Your task to perform on an android device: When is my next appointment? Image 0: 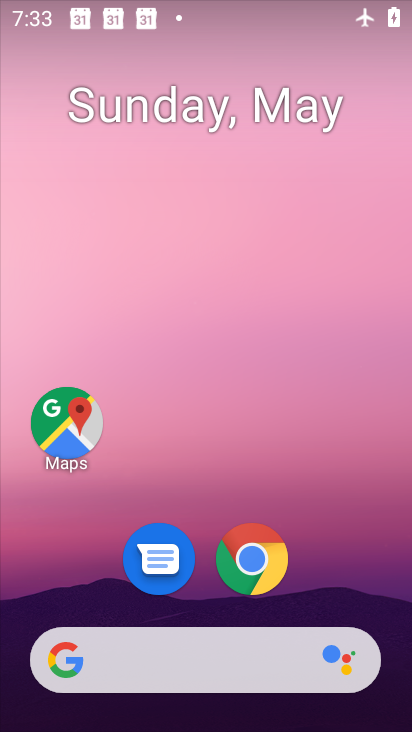
Step 0: press home button
Your task to perform on an android device: When is my next appointment? Image 1: 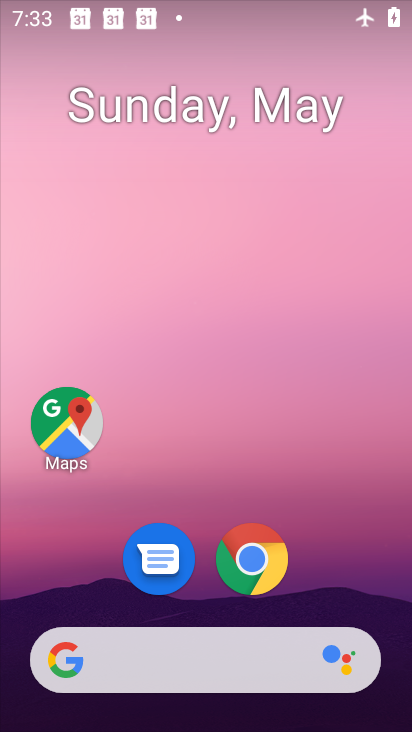
Step 1: drag from (183, 665) to (293, 153)
Your task to perform on an android device: When is my next appointment? Image 2: 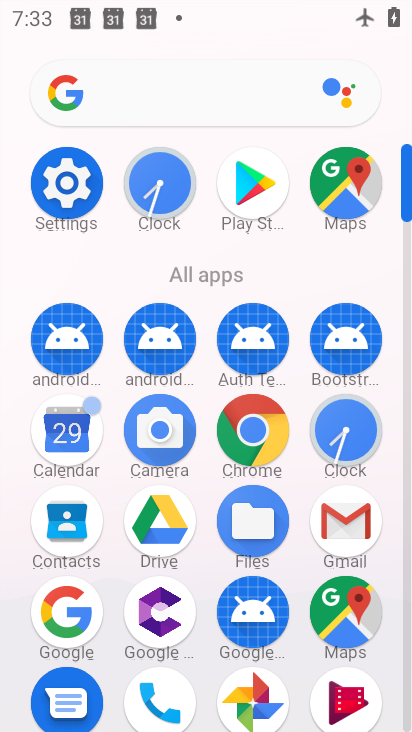
Step 2: click (66, 441)
Your task to perform on an android device: When is my next appointment? Image 3: 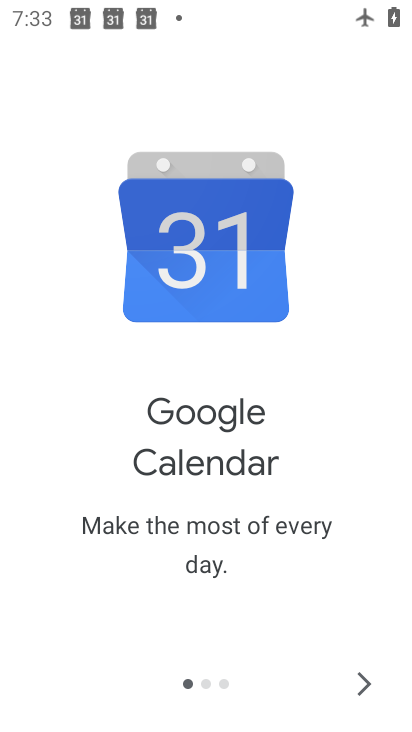
Step 3: click (371, 674)
Your task to perform on an android device: When is my next appointment? Image 4: 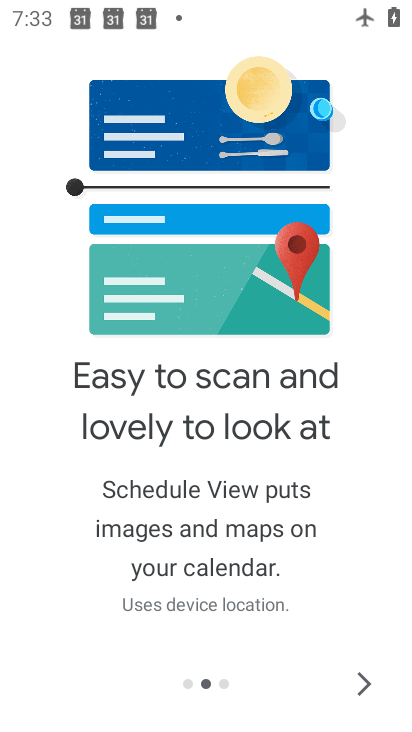
Step 4: click (369, 681)
Your task to perform on an android device: When is my next appointment? Image 5: 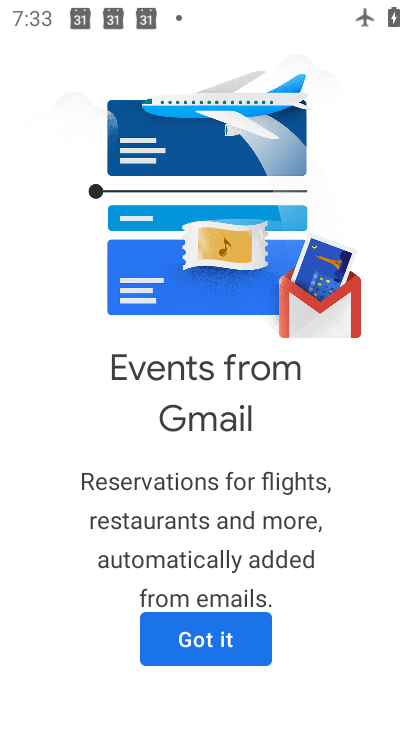
Step 5: click (206, 642)
Your task to perform on an android device: When is my next appointment? Image 6: 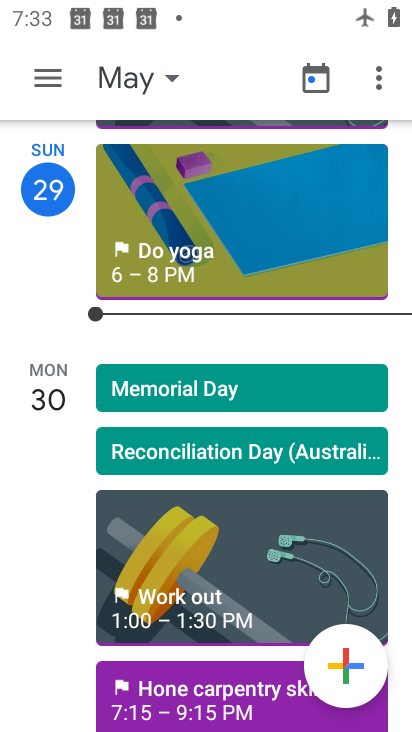
Step 6: click (115, 76)
Your task to perform on an android device: When is my next appointment? Image 7: 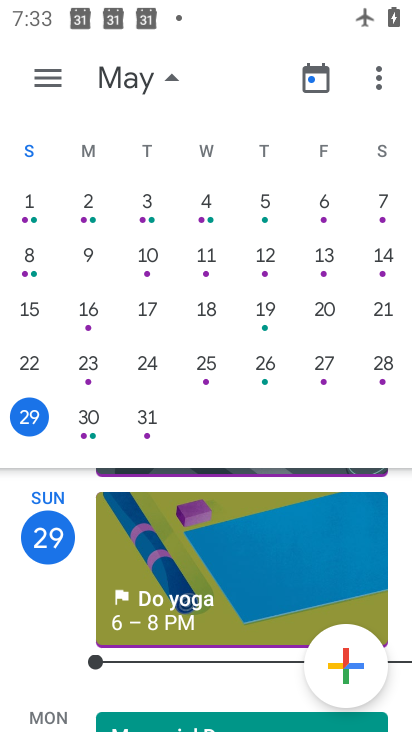
Step 7: click (34, 416)
Your task to perform on an android device: When is my next appointment? Image 8: 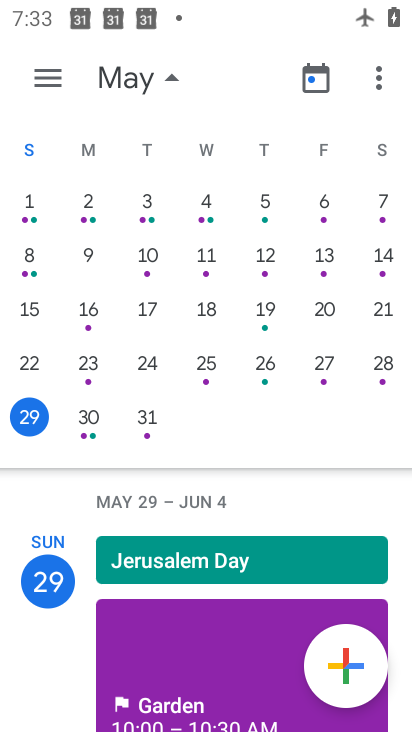
Step 8: click (46, 73)
Your task to perform on an android device: When is my next appointment? Image 9: 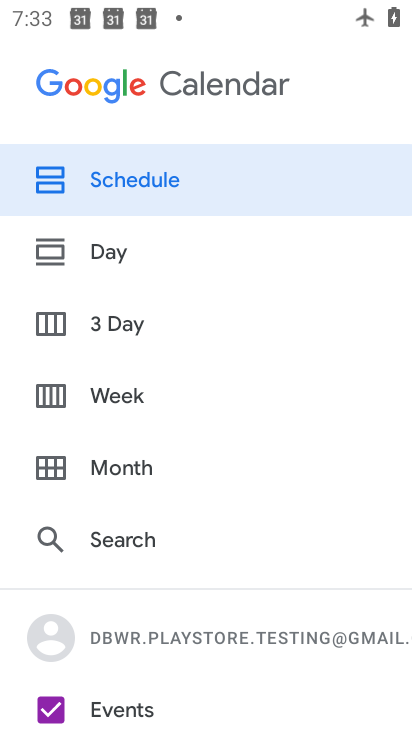
Step 9: click (150, 175)
Your task to perform on an android device: When is my next appointment? Image 10: 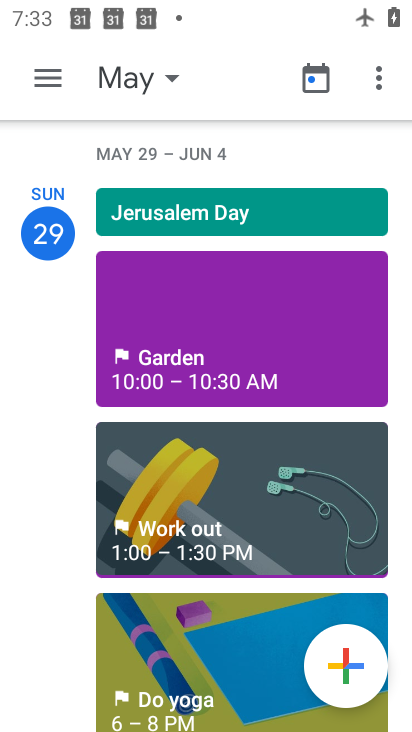
Step 10: click (213, 352)
Your task to perform on an android device: When is my next appointment? Image 11: 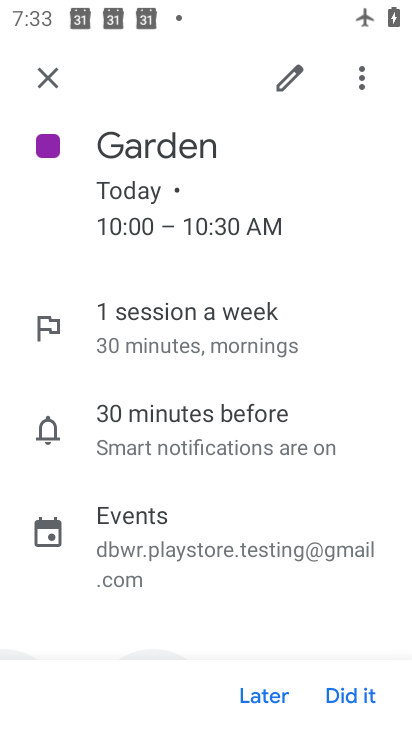
Step 11: task complete